Your task to perform on an android device: check android version Image 0: 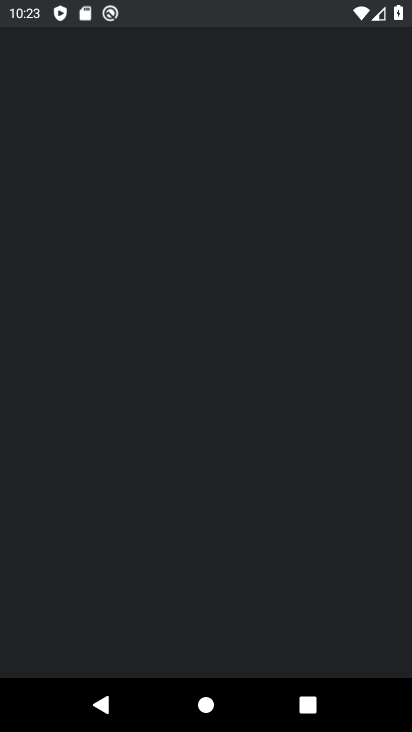
Step 0: press home button
Your task to perform on an android device: check android version Image 1: 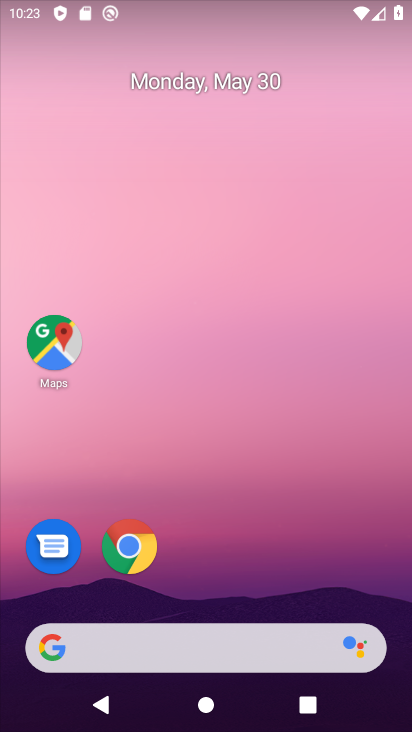
Step 1: drag from (219, 601) to (197, 94)
Your task to perform on an android device: check android version Image 2: 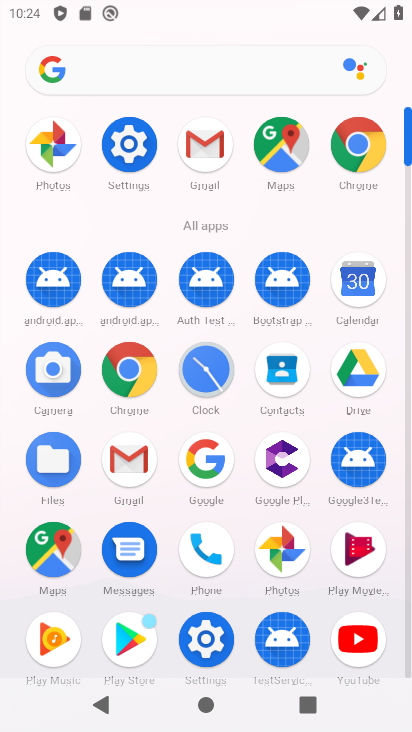
Step 2: click (127, 139)
Your task to perform on an android device: check android version Image 3: 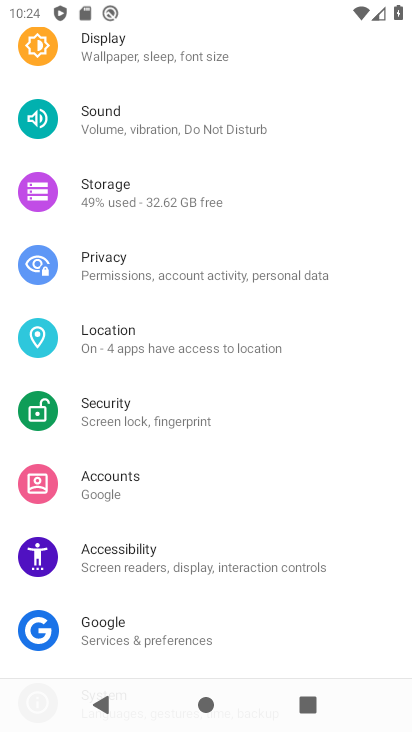
Step 3: drag from (211, 638) to (210, 88)
Your task to perform on an android device: check android version Image 4: 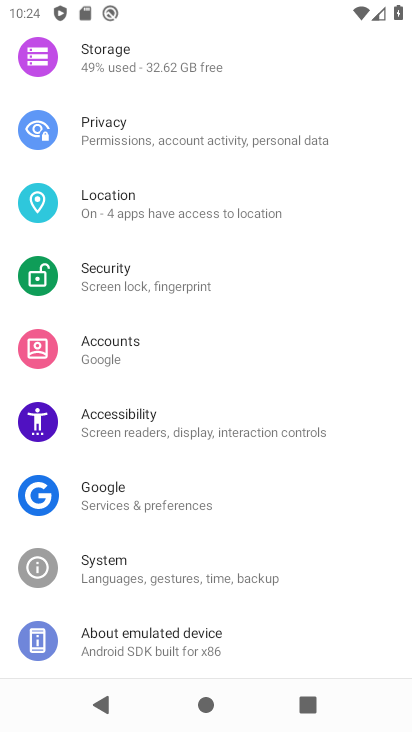
Step 4: click (230, 642)
Your task to perform on an android device: check android version Image 5: 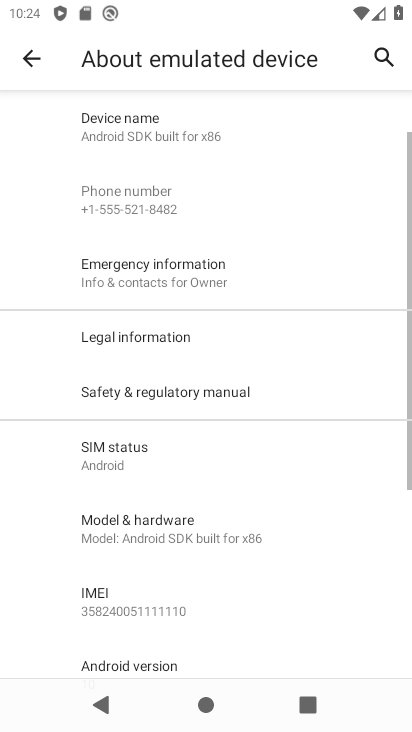
Step 5: drag from (193, 610) to (190, 160)
Your task to perform on an android device: check android version Image 6: 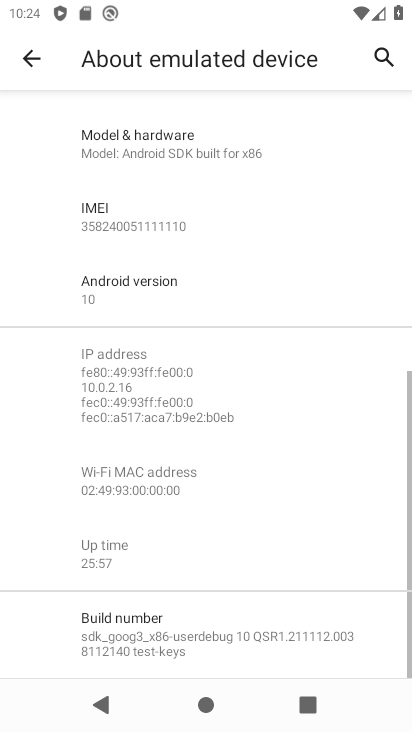
Step 6: click (170, 285)
Your task to perform on an android device: check android version Image 7: 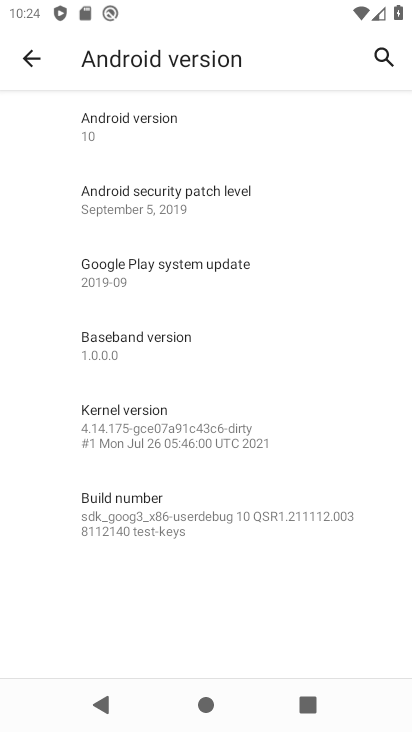
Step 7: task complete